Your task to perform on an android device: Search for sushi restaurants on Maps Image 0: 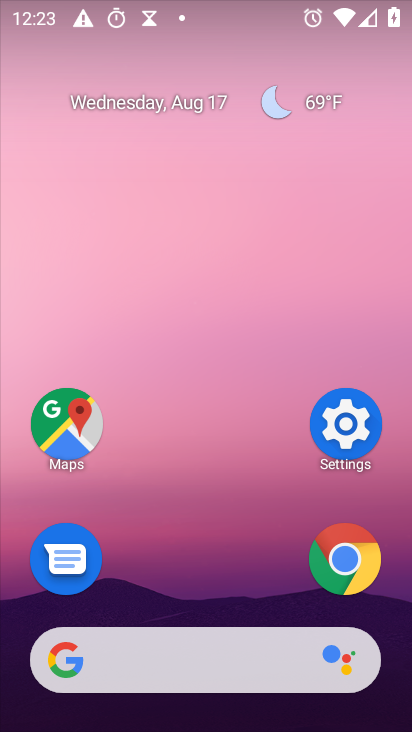
Step 0: click (73, 433)
Your task to perform on an android device: Search for sushi restaurants on Maps Image 1: 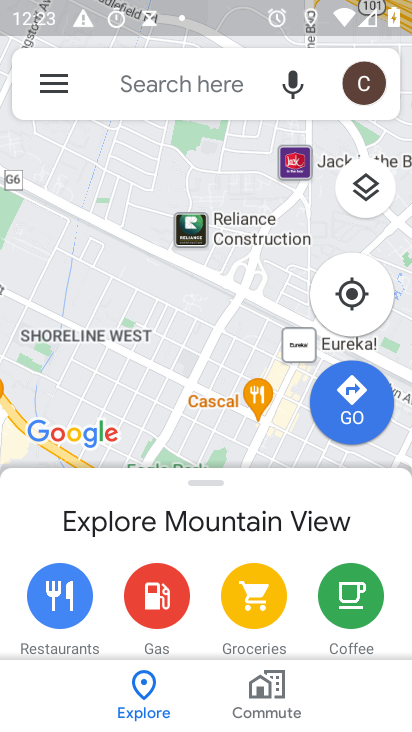
Step 1: click (159, 91)
Your task to perform on an android device: Search for sushi restaurants on Maps Image 2: 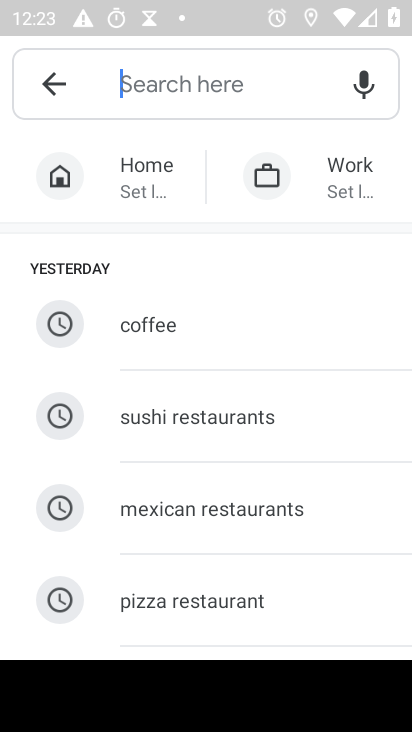
Step 2: click (230, 414)
Your task to perform on an android device: Search for sushi restaurants on Maps Image 3: 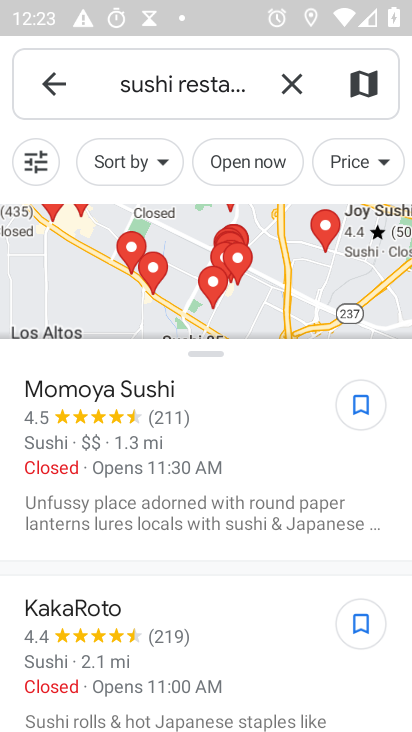
Step 3: task complete